Your task to perform on an android device: toggle translation in the chrome app Image 0: 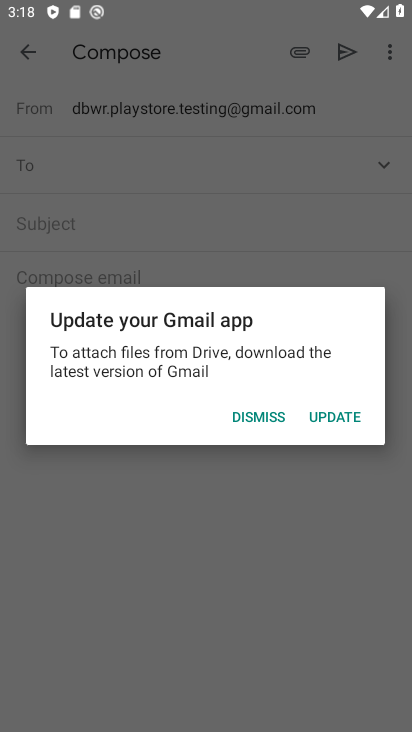
Step 0: press home button
Your task to perform on an android device: toggle translation in the chrome app Image 1: 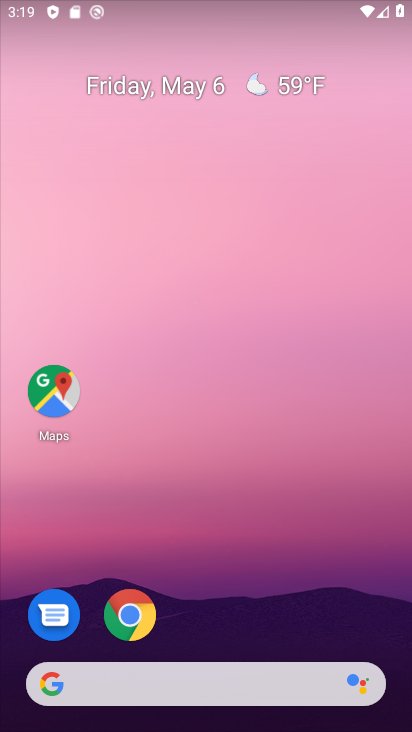
Step 1: click (123, 612)
Your task to perform on an android device: toggle translation in the chrome app Image 2: 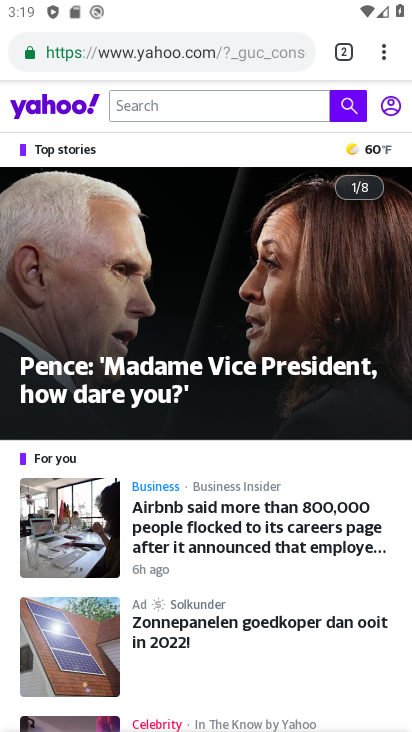
Step 2: click (385, 50)
Your task to perform on an android device: toggle translation in the chrome app Image 3: 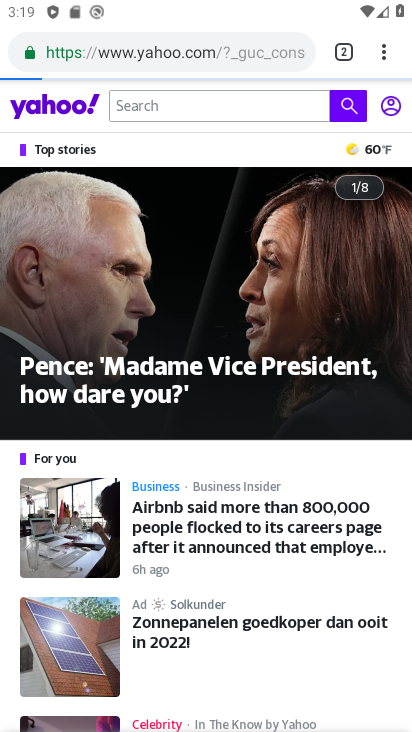
Step 3: drag from (387, 52) to (220, 629)
Your task to perform on an android device: toggle translation in the chrome app Image 4: 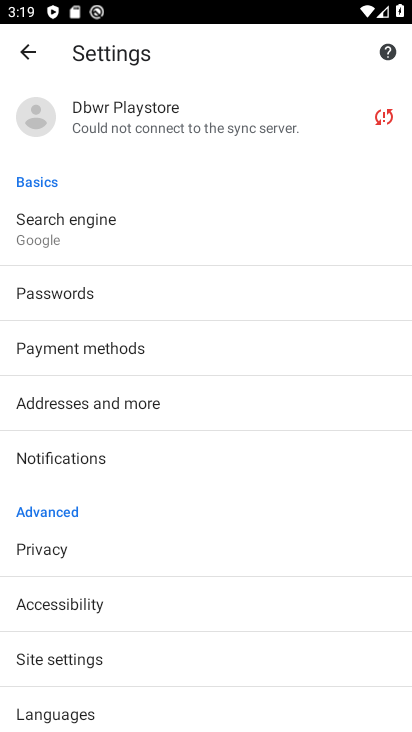
Step 4: click (73, 716)
Your task to perform on an android device: toggle translation in the chrome app Image 5: 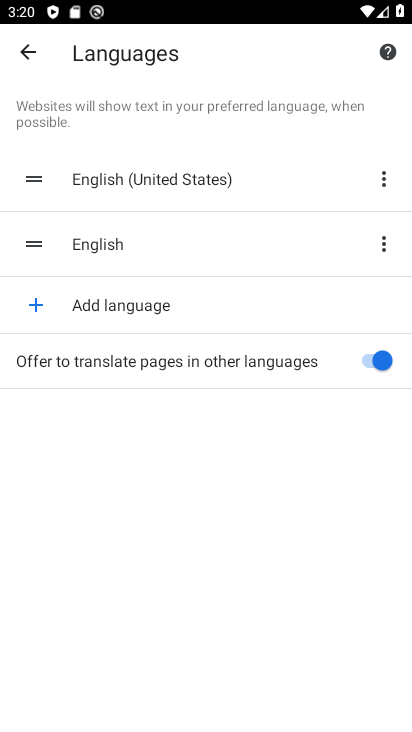
Step 5: click (374, 361)
Your task to perform on an android device: toggle translation in the chrome app Image 6: 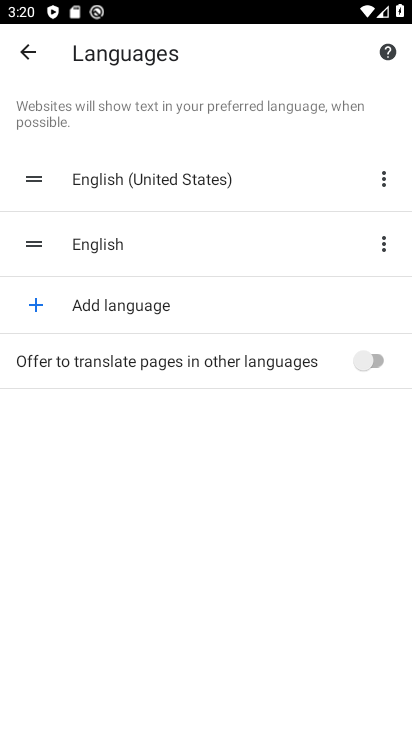
Step 6: task complete